Your task to perform on an android device: Do I have any events this weekend? Image 0: 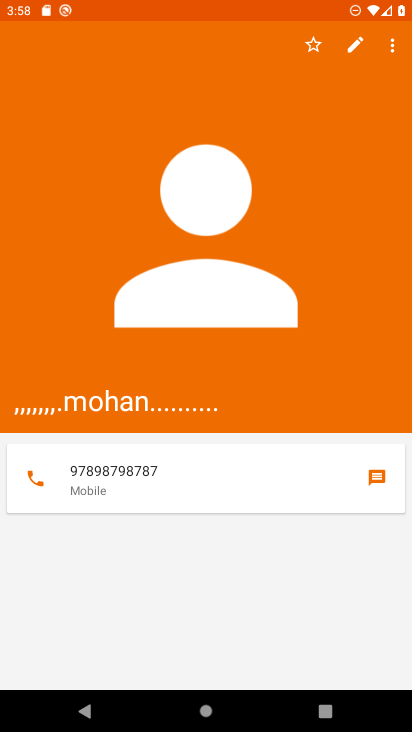
Step 0: press home button
Your task to perform on an android device: Do I have any events this weekend? Image 1: 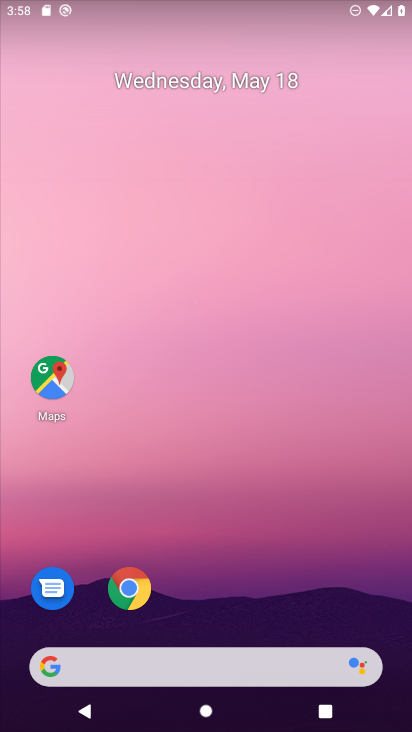
Step 1: drag from (320, 515) to (333, 20)
Your task to perform on an android device: Do I have any events this weekend? Image 2: 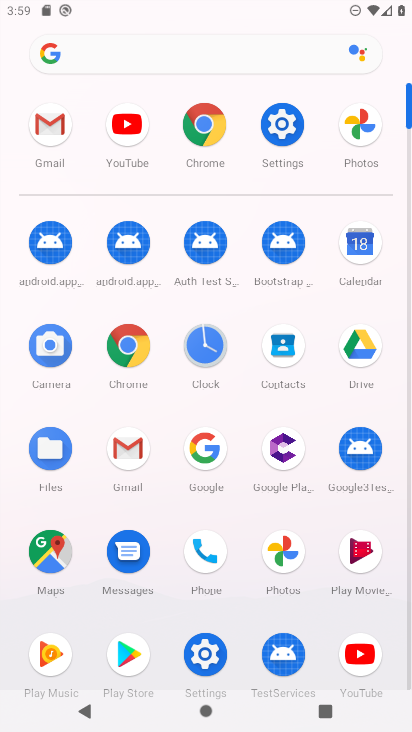
Step 2: click (360, 285)
Your task to perform on an android device: Do I have any events this weekend? Image 3: 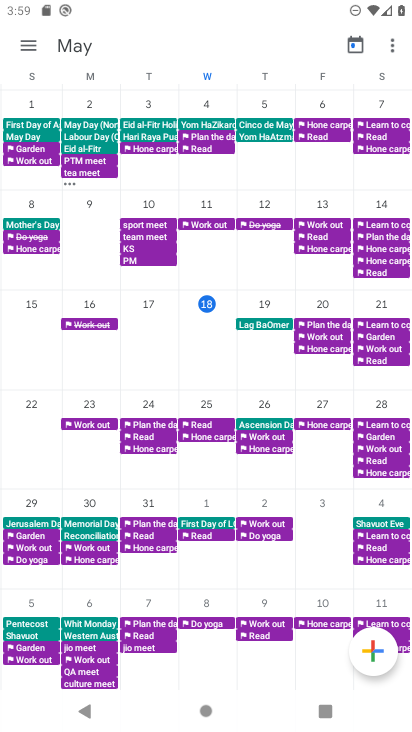
Step 3: task complete